Your task to perform on an android device: Open the calendar app, open the side menu, and click the "Day" option Image 0: 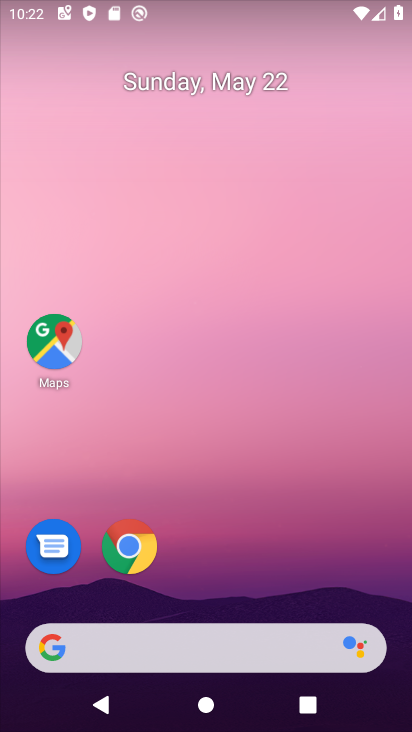
Step 0: drag from (190, 613) to (190, 1)
Your task to perform on an android device: Open the calendar app, open the side menu, and click the "Day" option Image 1: 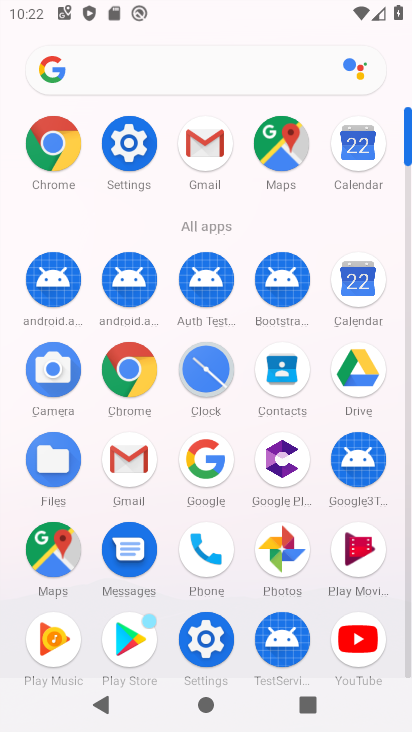
Step 1: click (370, 150)
Your task to perform on an android device: Open the calendar app, open the side menu, and click the "Day" option Image 2: 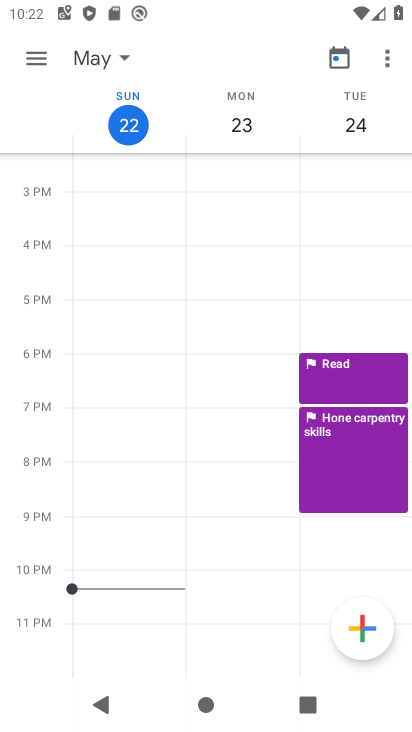
Step 2: click (34, 53)
Your task to perform on an android device: Open the calendar app, open the side menu, and click the "Day" option Image 3: 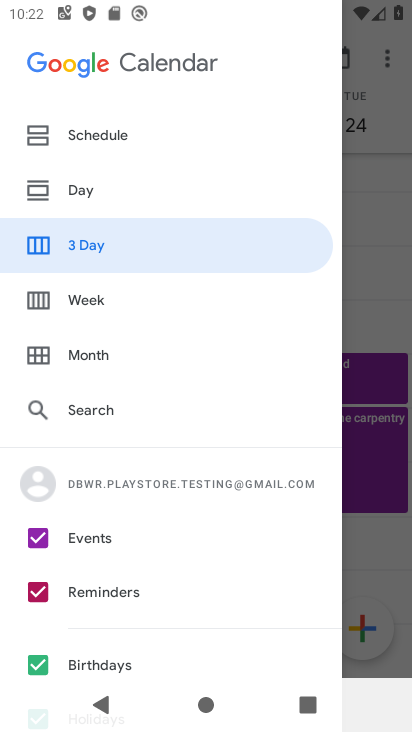
Step 3: click (78, 192)
Your task to perform on an android device: Open the calendar app, open the side menu, and click the "Day" option Image 4: 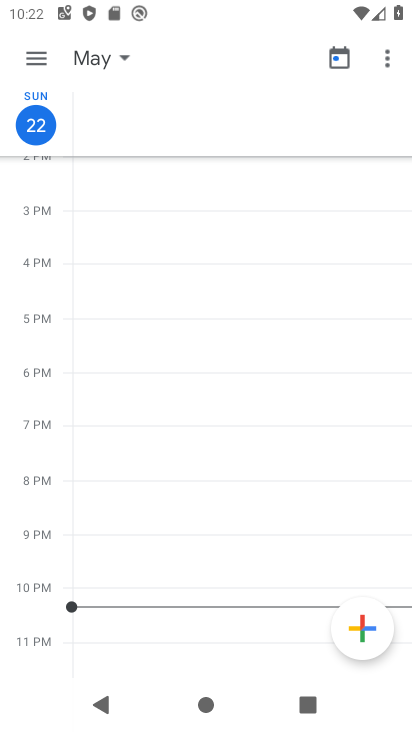
Step 4: task complete